Your task to perform on an android device: Open settings Image 0: 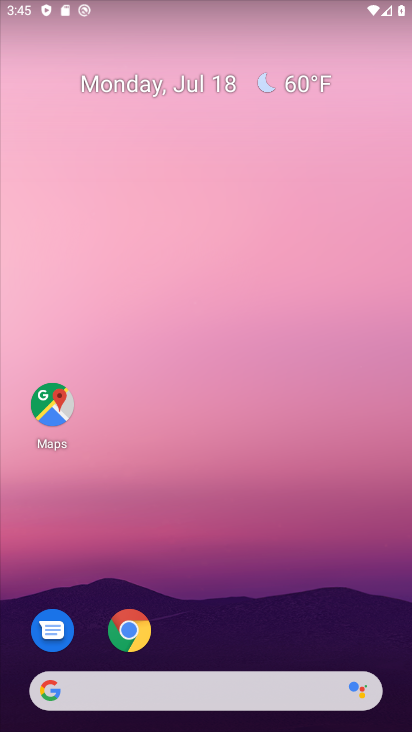
Step 0: drag from (348, 635) to (319, 284)
Your task to perform on an android device: Open settings Image 1: 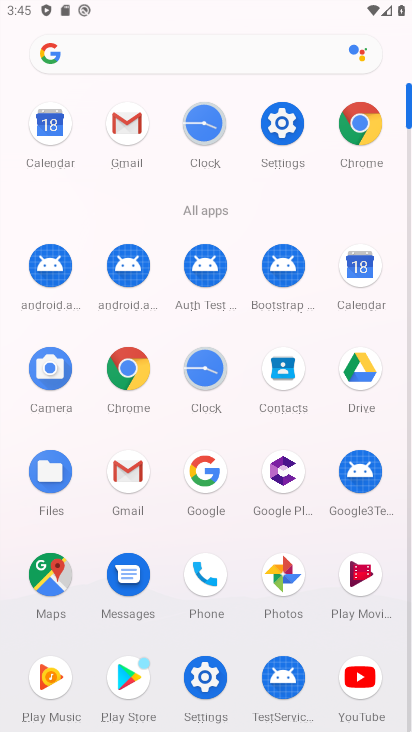
Step 1: click (209, 667)
Your task to perform on an android device: Open settings Image 2: 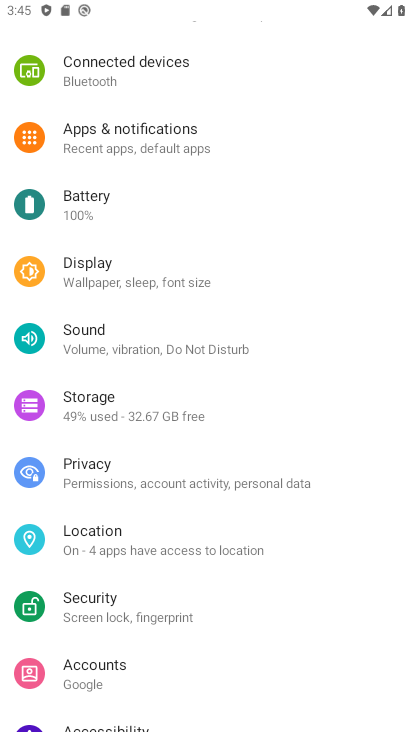
Step 2: task complete